Your task to perform on an android device: turn off picture-in-picture Image 0: 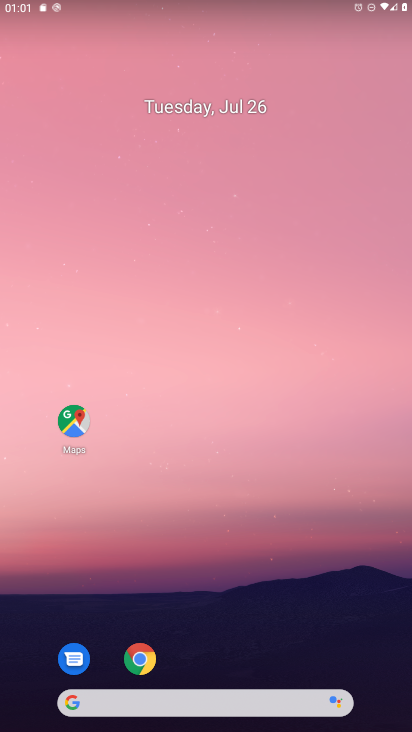
Step 0: click (149, 648)
Your task to perform on an android device: turn off picture-in-picture Image 1: 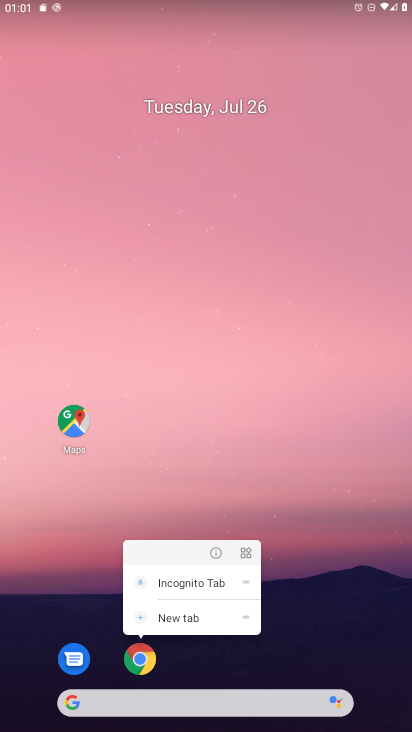
Step 1: click (214, 544)
Your task to perform on an android device: turn off picture-in-picture Image 2: 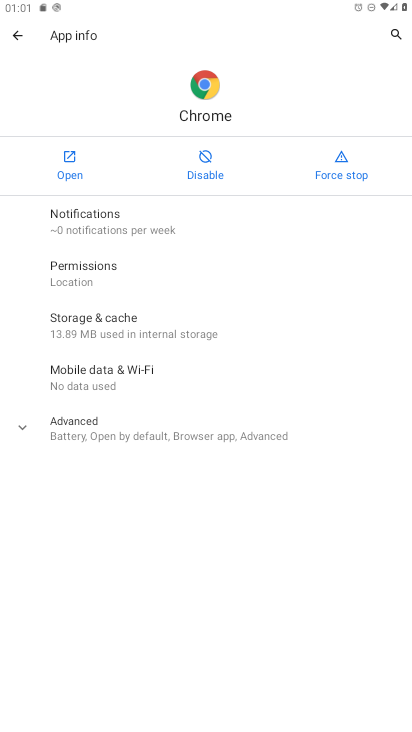
Step 2: click (79, 434)
Your task to perform on an android device: turn off picture-in-picture Image 3: 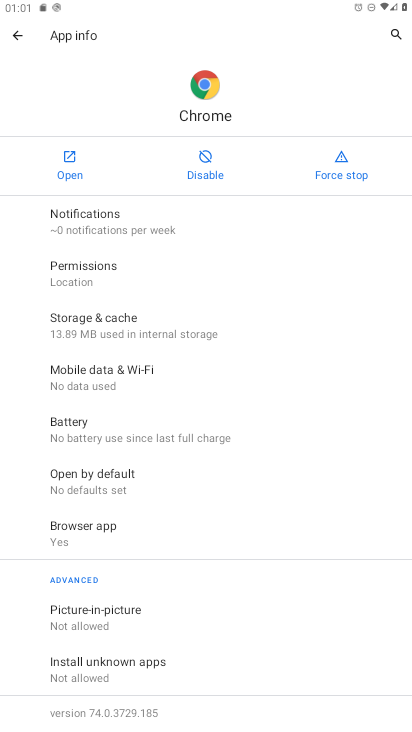
Step 3: click (100, 606)
Your task to perform on an android device: turn off picture-in-picture Image 4: 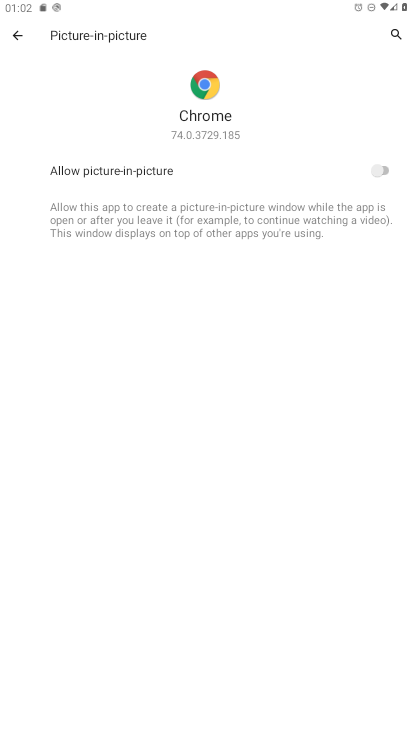
Step 4: task complete